Your task to perform on an android device: find snoozed emails in the gmail app Image 0: 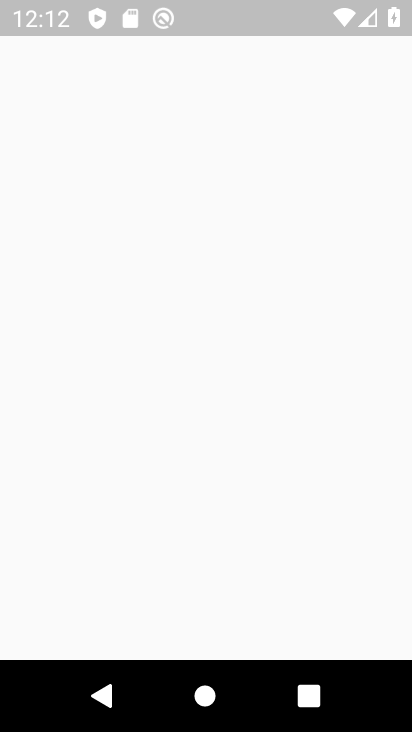
Step 0: press home button
Your task to perform on an android device: find snoozed emails in the gmail app Image 1: 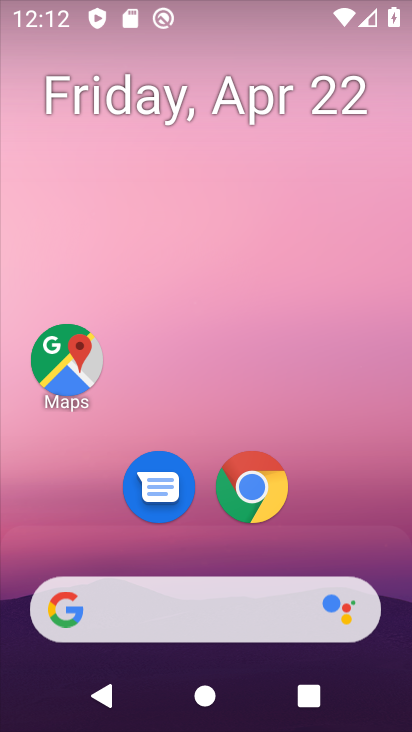
Step 1: drag from (321, 525) to (321, 108)
Your task to perform on an android device: find snoozed emails in the gmail app Image 2: 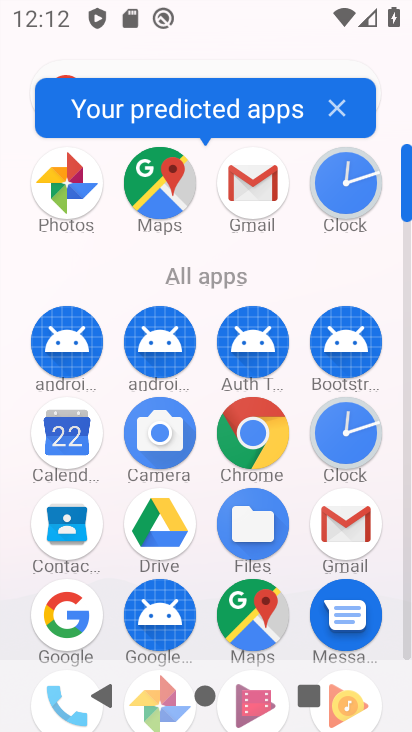
Step 2: click (262, 185)
Your task to perform on an android device: find snoozed emails in the gmail app Image 3: 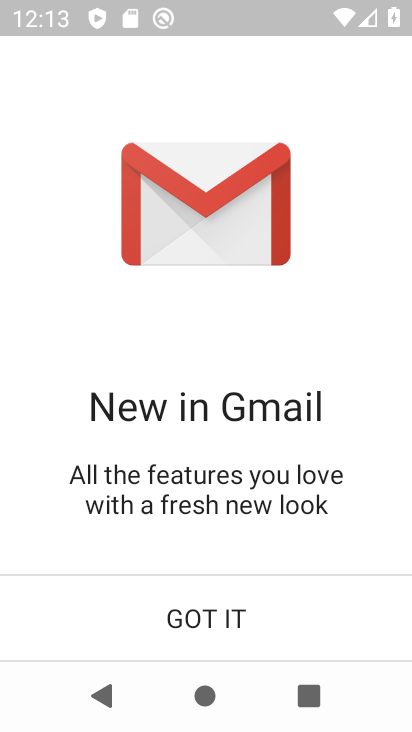
Step 3: click (265, 599)
Your task to perform on an android device: find snoozed emails in the gmail app Image 4: 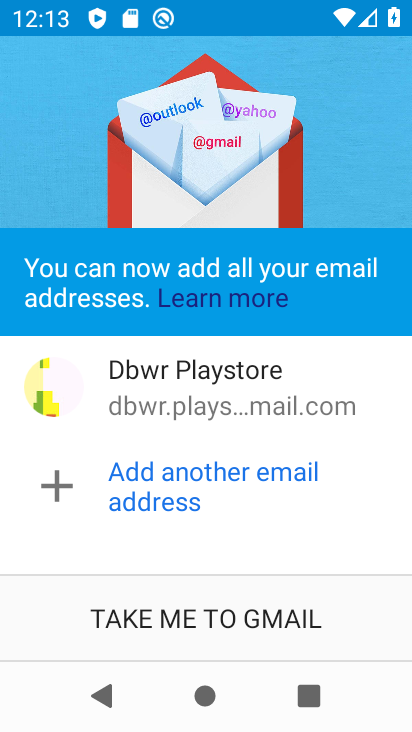
Step 4: click (276, 618)
Your task to perform on an android device: find snoozed emails in the gmail app Image 5: 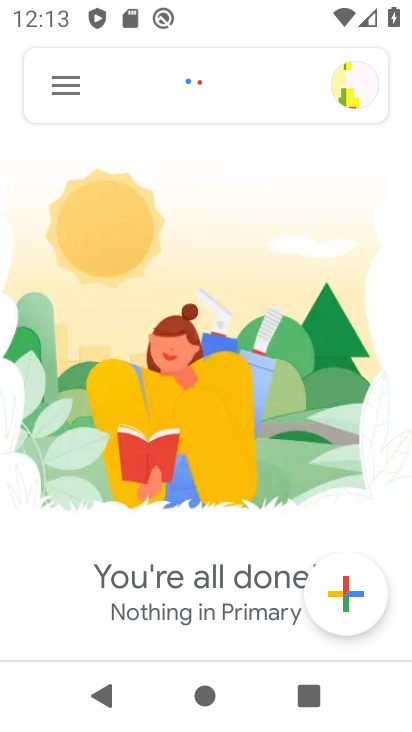
Step 5: click (72, 83)
Your task to perform on an android device: find snoozed emails in the gmail app Image 6: 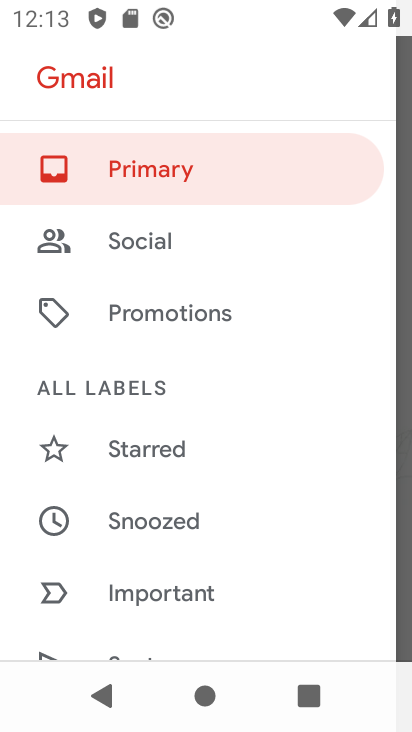
Step 6: click (181, 527)
Your task to perform on an android device: find snoozed emails in the gmail app Image 7: 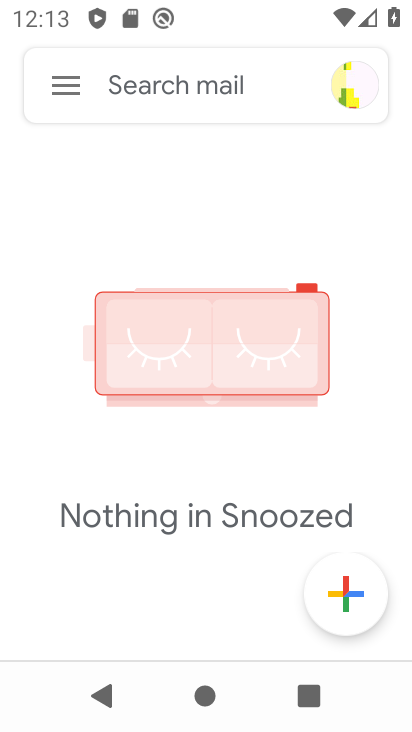
Step 7: task complete